Your task to perform on an android device: clear all cookies in the chrome app Image 0: 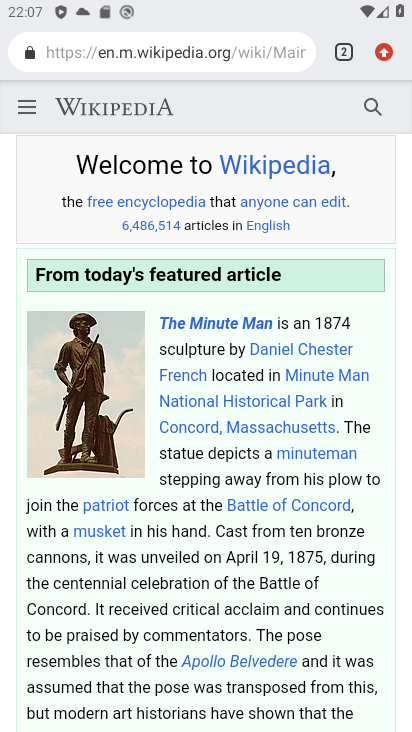
Step 0: click (382, 50)
Your task to perform on an android device: clear all cookies in the chrome app Image 1: 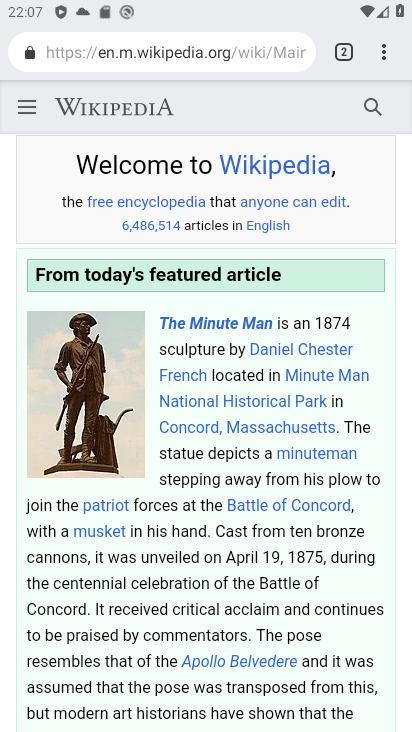
Step 1: click (380, 50)
Your task to perform on an android device: clear all cookies in the chrome app Image 2: 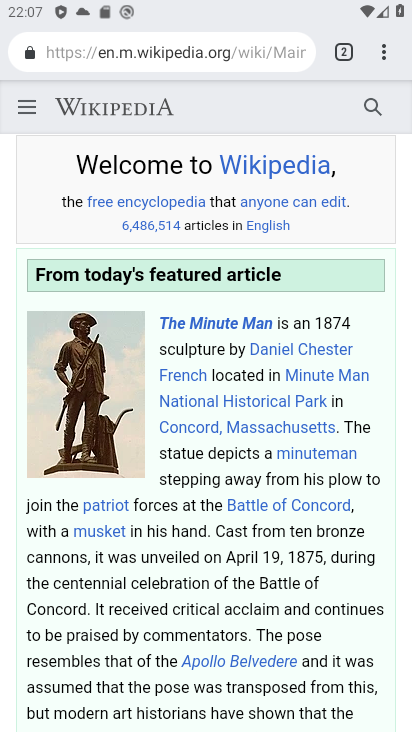
Step 2: click (388, 54)
Your task to perform on an android device: clear all cookies in the chrome app Image 3: 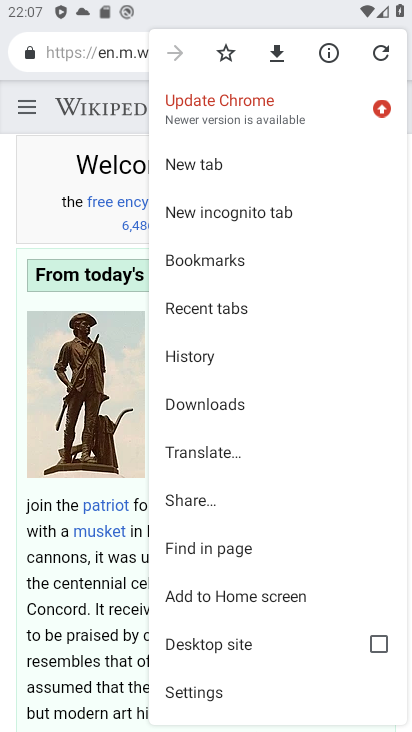
Step 3: click (192, 692)
Your task to perform on an android device: clear all cookies in the chrome app Image 4: 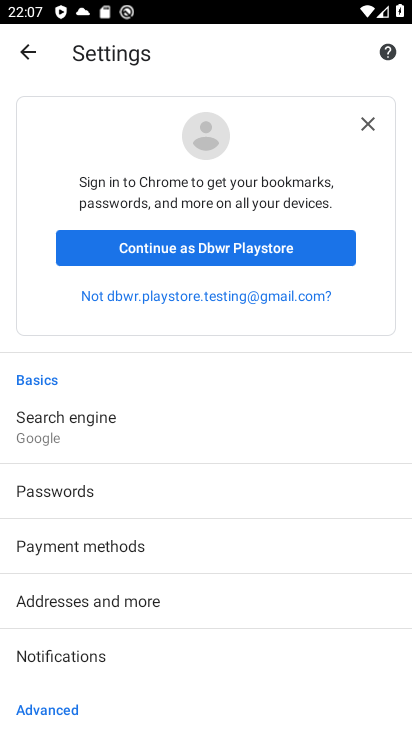
Step 4: drag from (224, 605) to (214, 379)
Your task to perform on an android device: clear all cookies in the chrome app Image 5: 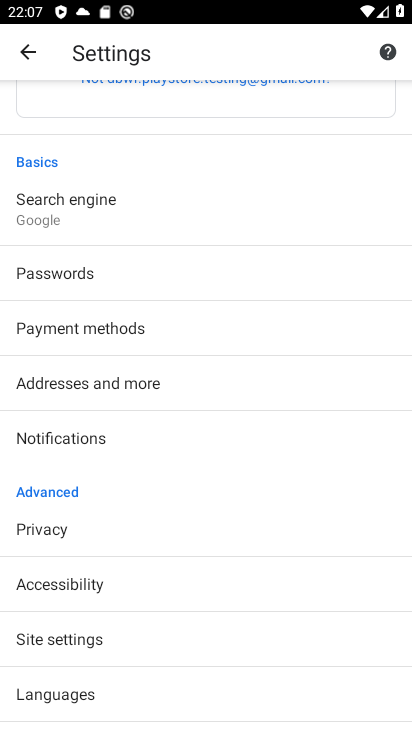
Step 5: click (43, 529)
Your task to perform on an android device: clear all cookies in the chrome app Image 6: 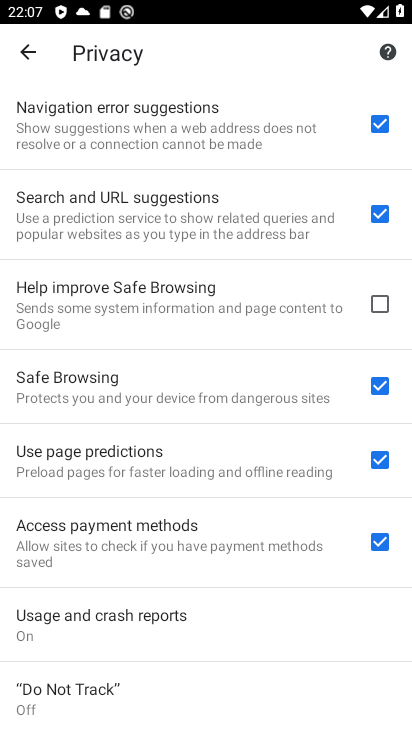
Step 6: drag from (209, 574) to (191, 302)
Your task to perform on an android device: clear all cookies in the chrome app Image 7: 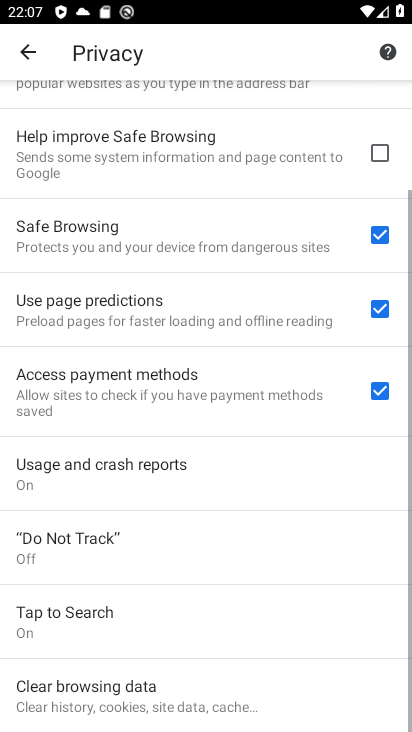
Step 7: click (88, 694)
Your task to perform on an android device: clear all cookies in the chrome app Image 8: 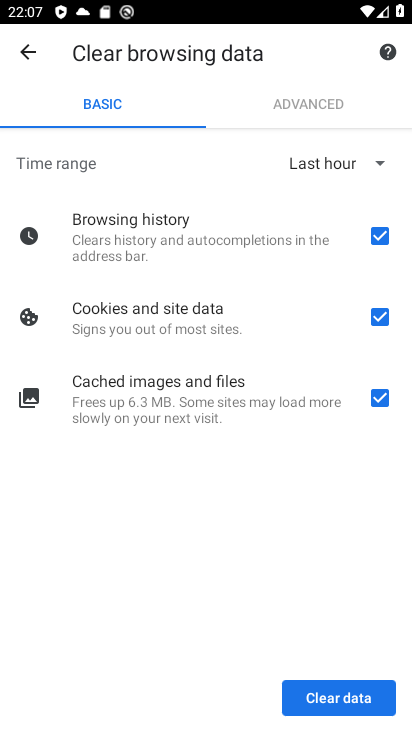
Step 8: click (372, 399)
Your task to perform on an android device: clear all cookies in the chrome app Image 9: 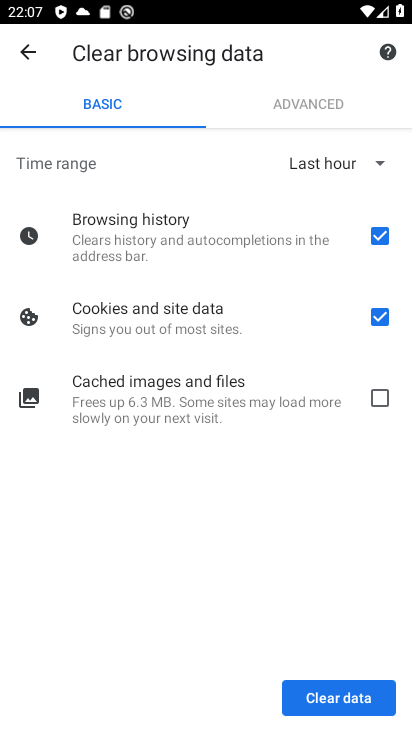
Step 9: click (372, 244)
Your task to perform on an android device: clear all cookies in the chrome app Image 10: 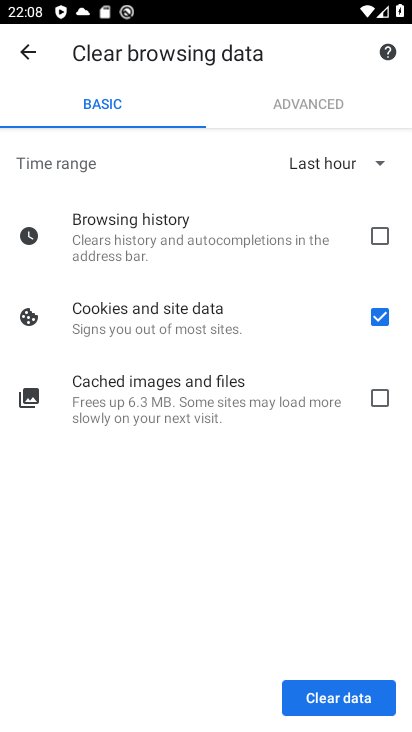
Step 10: click (338, 695)
Your task to perform on an android device: clear all cookies in the chrome app Image 11: 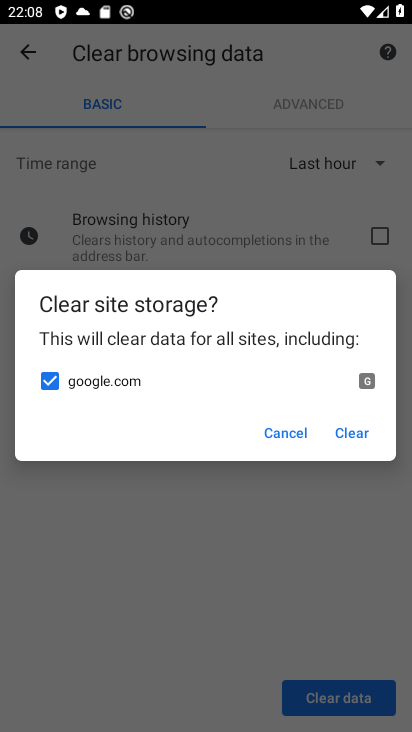
Step 11: click (351, 434)
Your task to perform on an android device: clear all cookies in the chrome app Image 12: 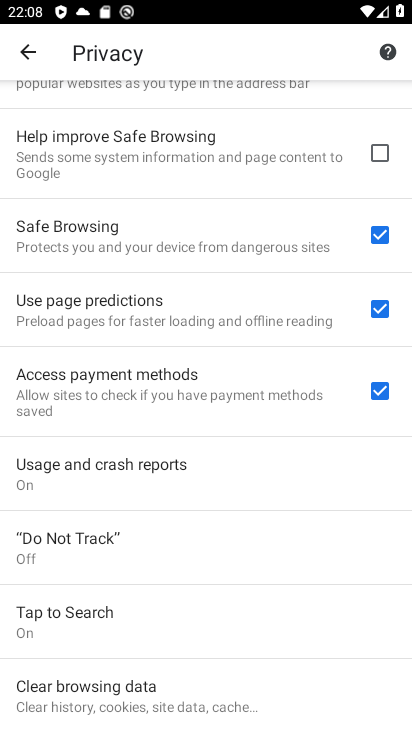
Step 12: task complete